Your task to perform on an android device: allow cookies in the chrome app Image 0: 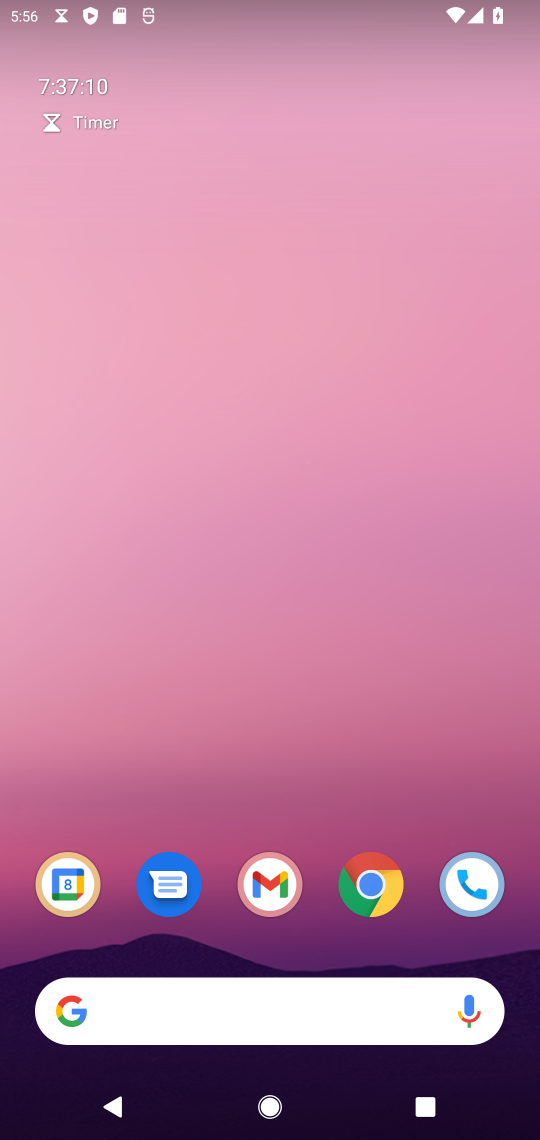
Step 0: press home button
Your task to perform on an android device: allow cookies in the chrome app Image 1: 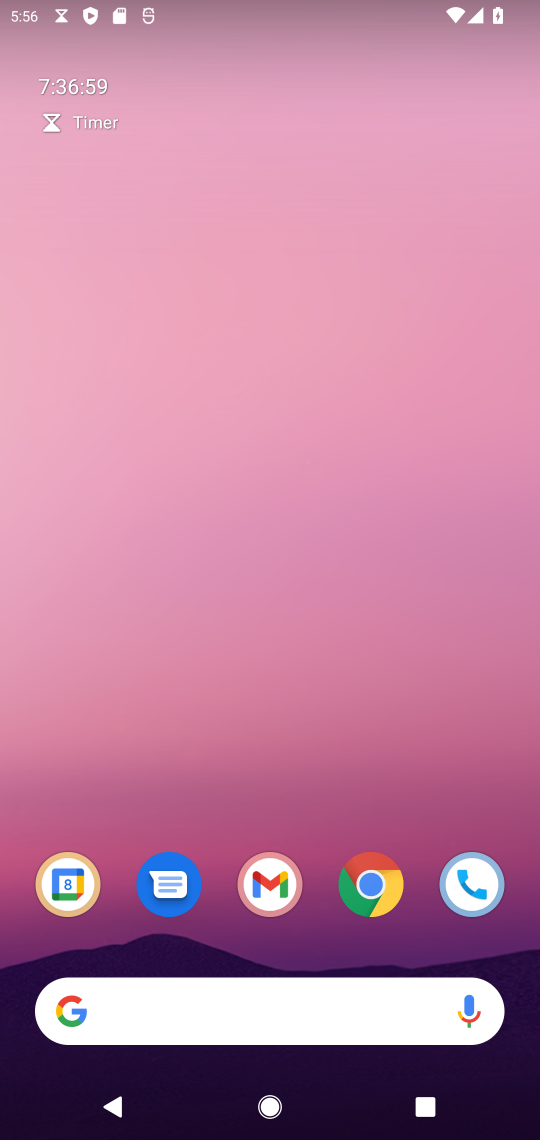
Step 1: drag from (335, 804) to (315, 112)
Your task to perform on an android device: allow cookies in the chrome app Image 2: 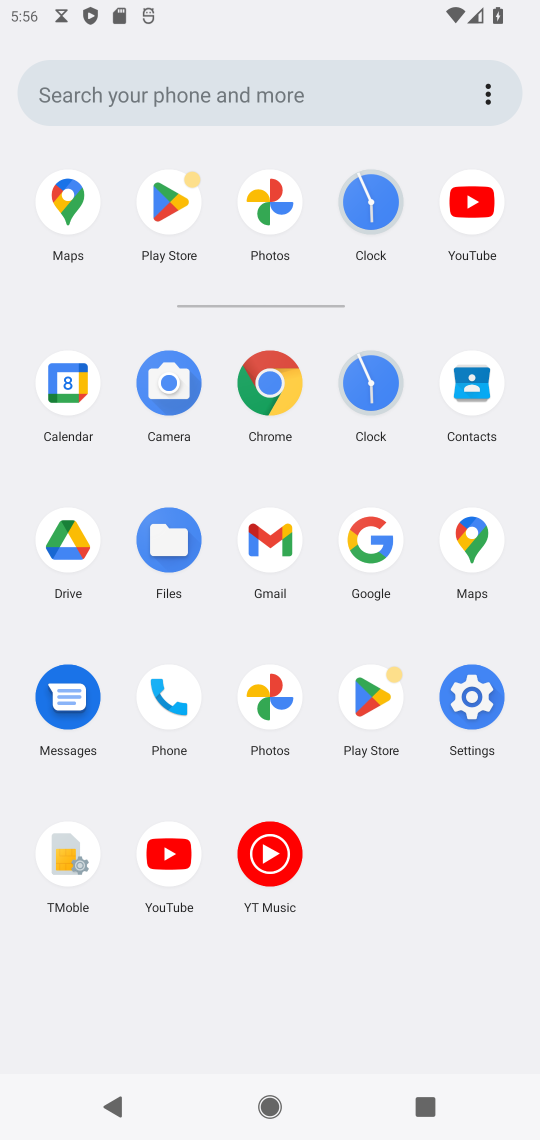
Step 2: click (264, 358)
Your task to perform on an android device: allow cookies in the chrome app Image 3: 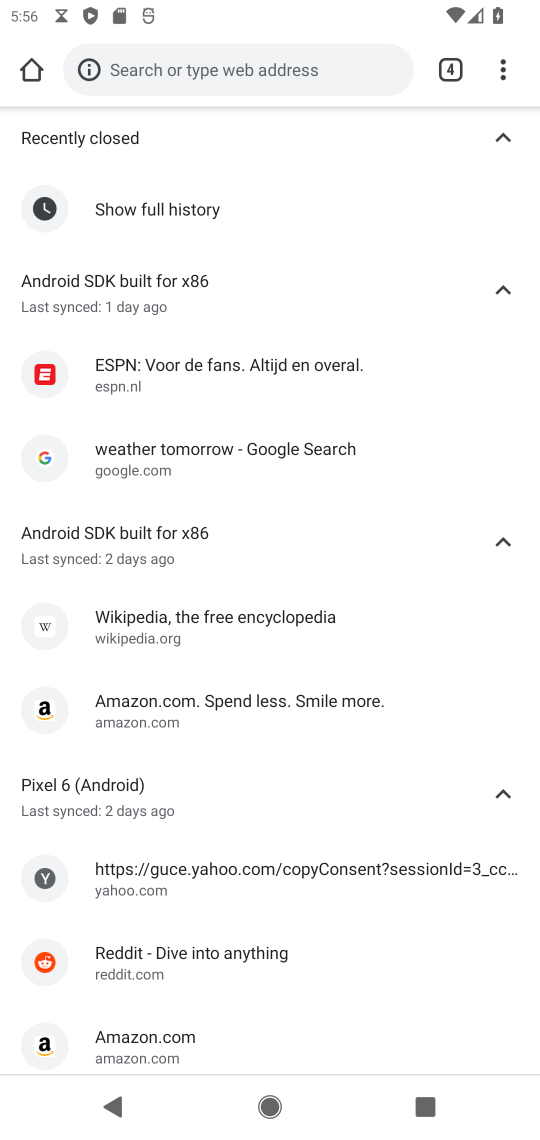
Step 3: click (510, 66)
Your task to perform on an android device: allow cookies in the chrome app Image 4: 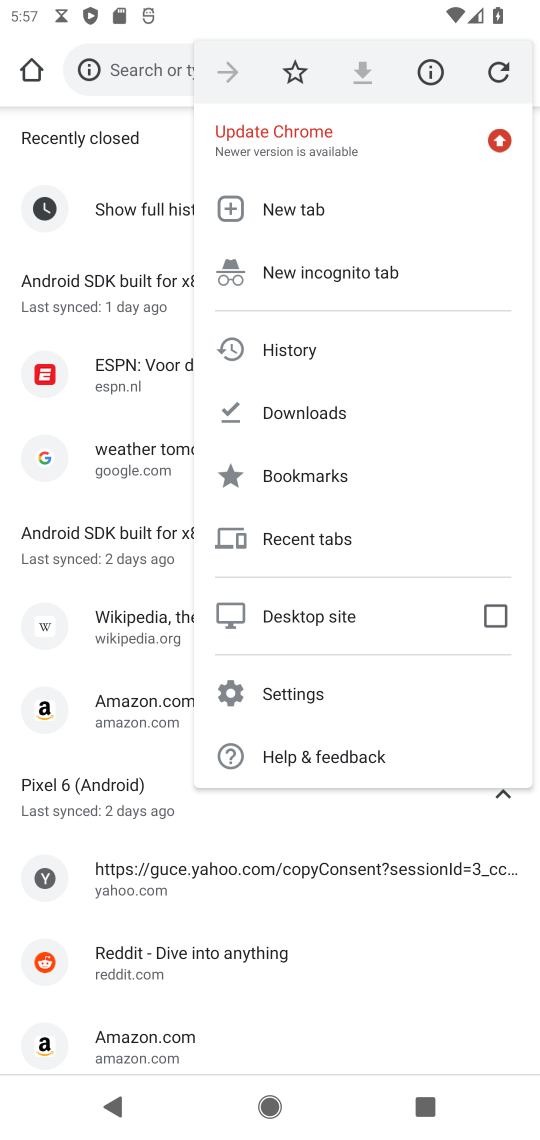
Step 4: click (319, 697)
Your task to perform on an android device: allow cookies in the chrome app Image 5: 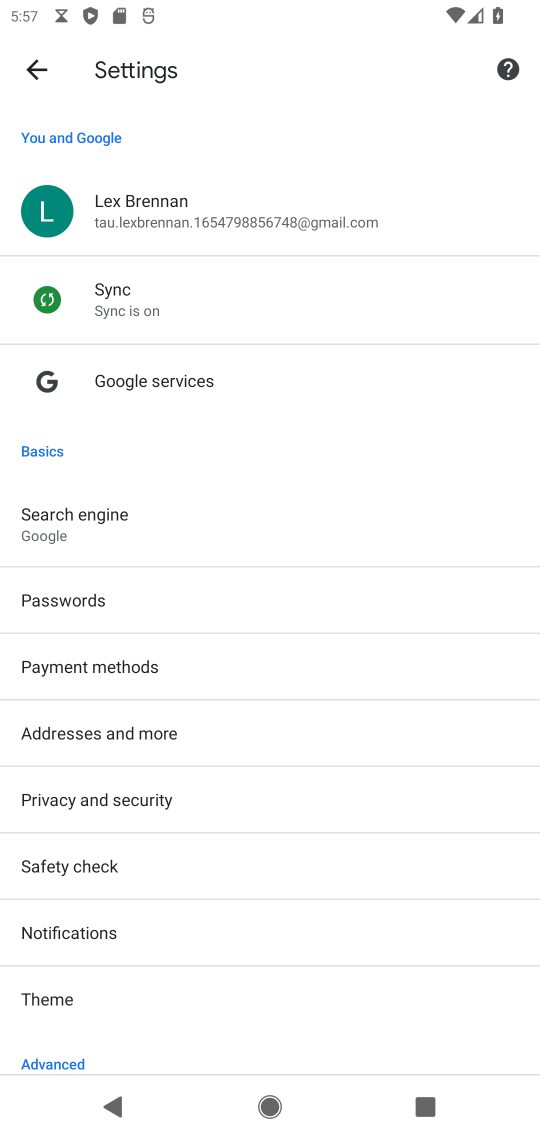
Step 5: drag from (227, 1024) to (191, 227)
Your task to perform on an android device: allow cookies in the chrome app Image 6: 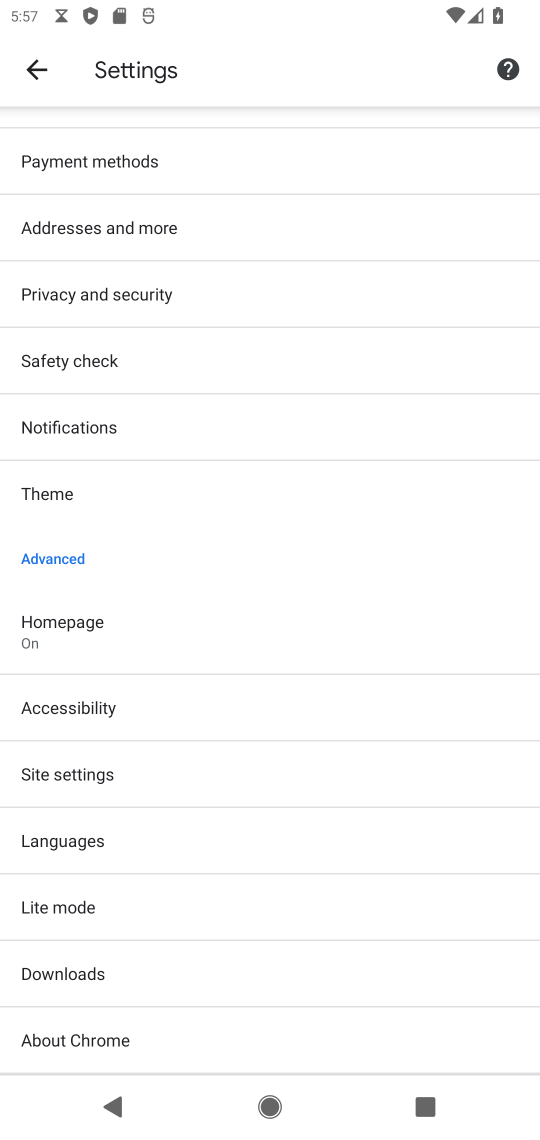
Step 6: click (324, 778)
Your task to perform on an android device: allow cookies in the chrome app Image 7: 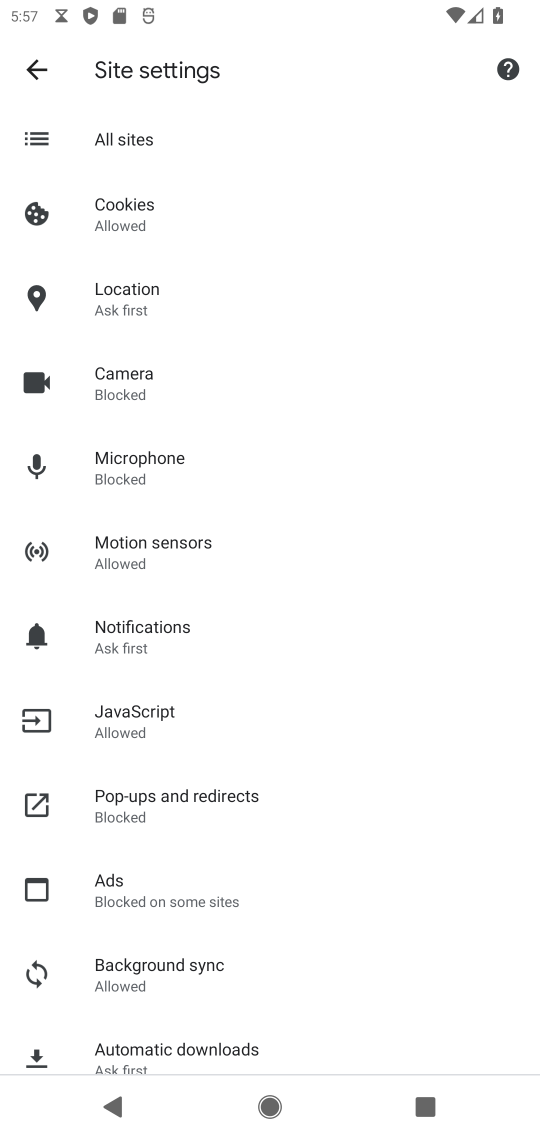
Step 7: click (167, 235)
Your task to perform on an android device: allow cookies in the chrome app Image 8: 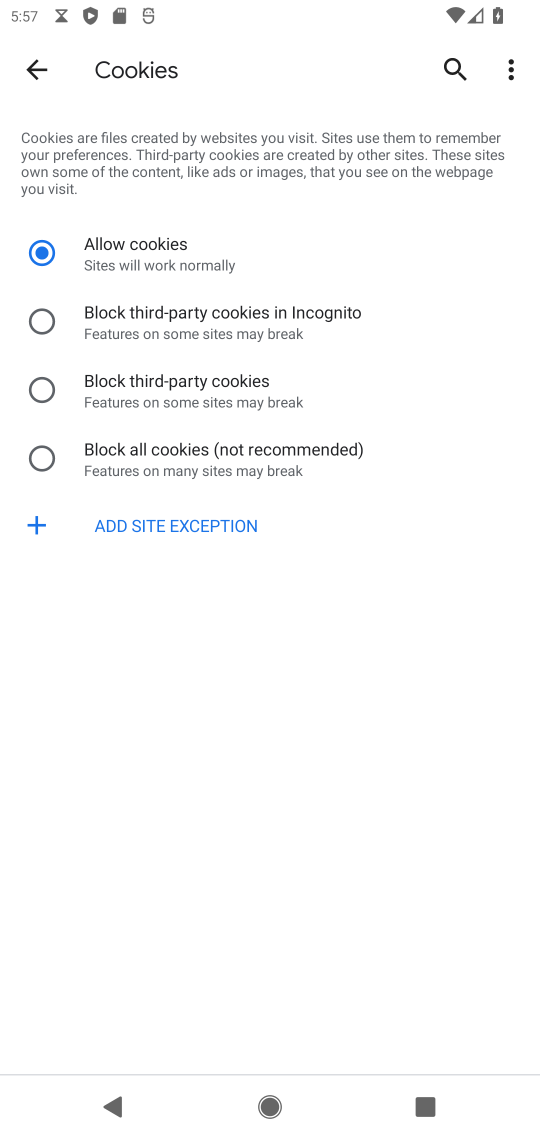
Step 8: task complete